Your task to perform on an android device: check the backup settings in the google photos Image 0: 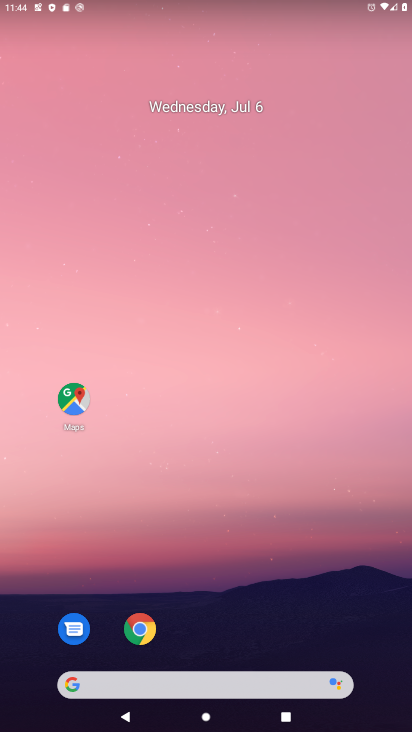
Step 0: drag from (249, 614) to (187, 154)
Your task to perform on an android device: check the backup settings in the google photos Image 1: 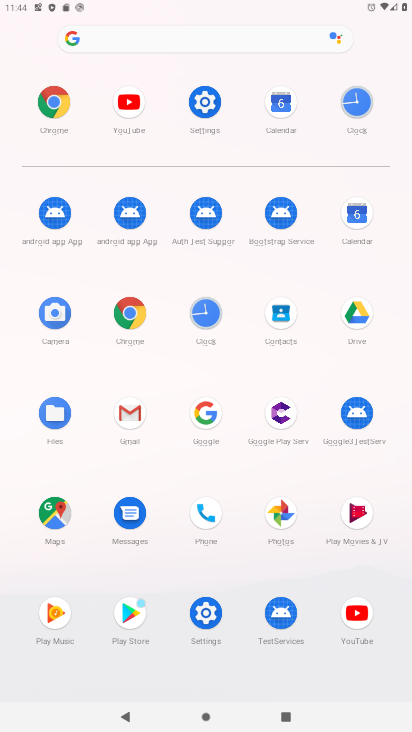
Step 1: click (280, 512)
Your task to perform on an android device: check the backup settings in the google photos Image 2: 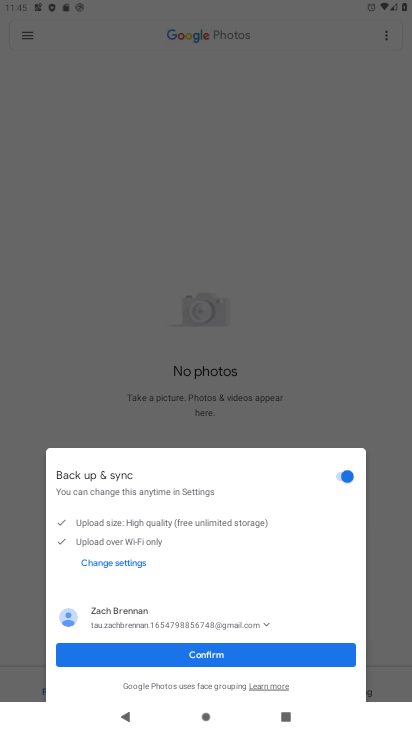
Step 2: click (205, 661)
Your task to perform on an android device: check the backup settings in the google photos Image 3: 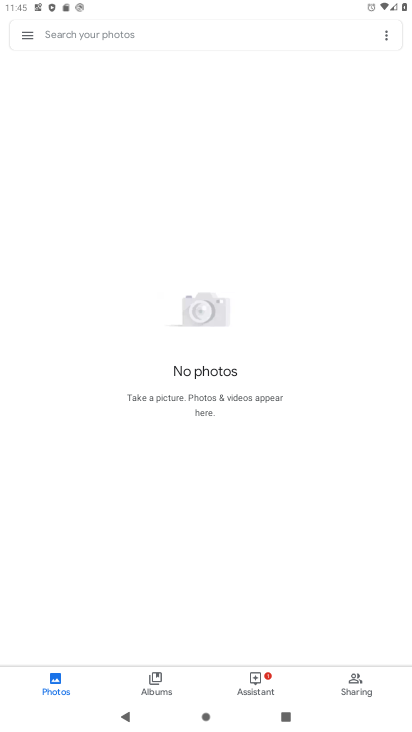
Step 3: click (31, 38)
Your task to perform on an android device: check the backup settings in the google photos Image 4: 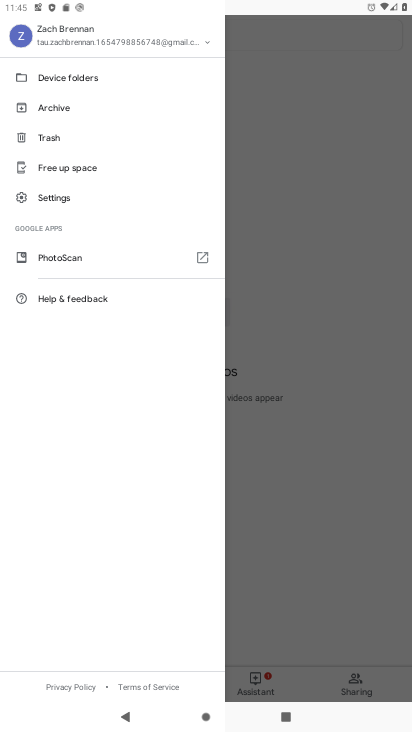
Step 4: click (62, 199)
Your task to perform on an android device: check the backup settings in the google photos Image 5: 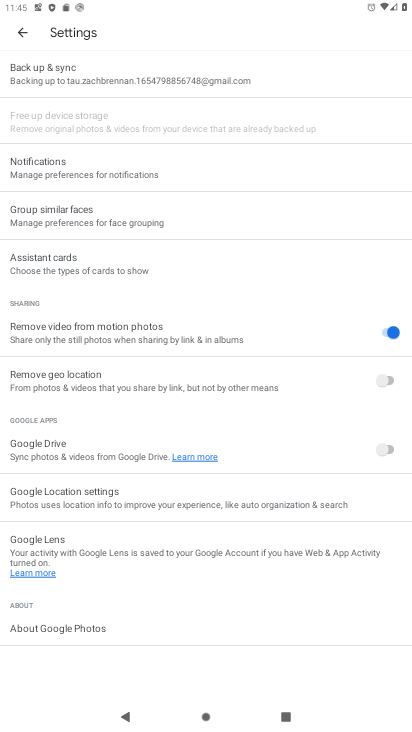
Step 5: click (114, 79)
Your task to perform on an android device: check the backup settings in the google photos Image 6: 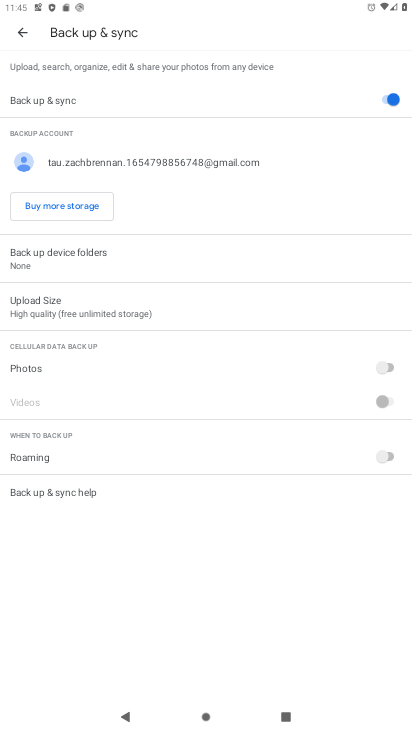
Step 6: task complete